Your task to perform on an android device: Open sound settings Image 0: 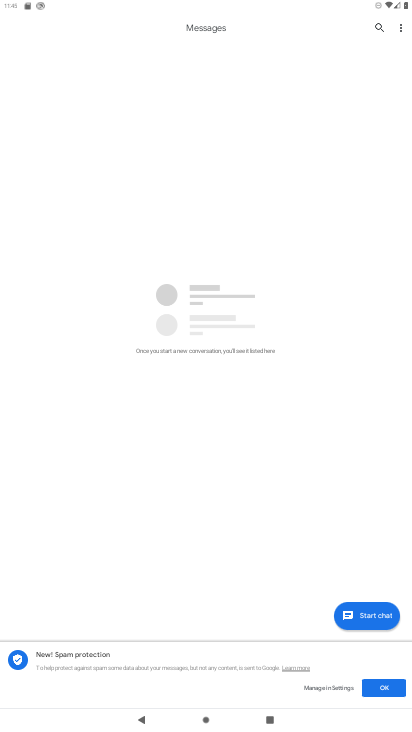
Step 0: press home button
Your task to perform on an android device: Open sound settings Image 1: 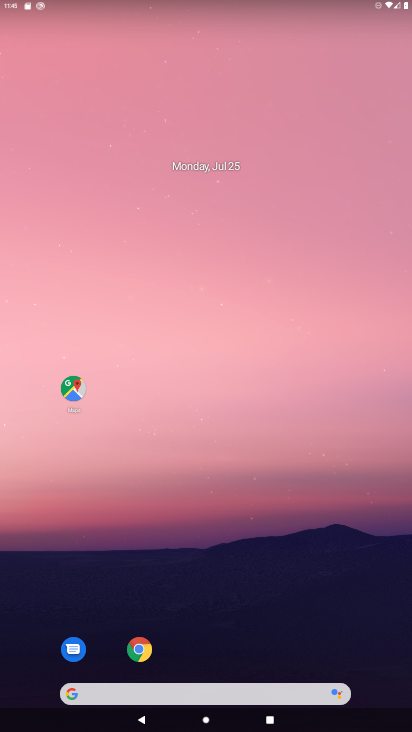
Step 1: drag from (356, 669) to (312, 242)
Your task to perform on an android device: Open sound settings Image 2: 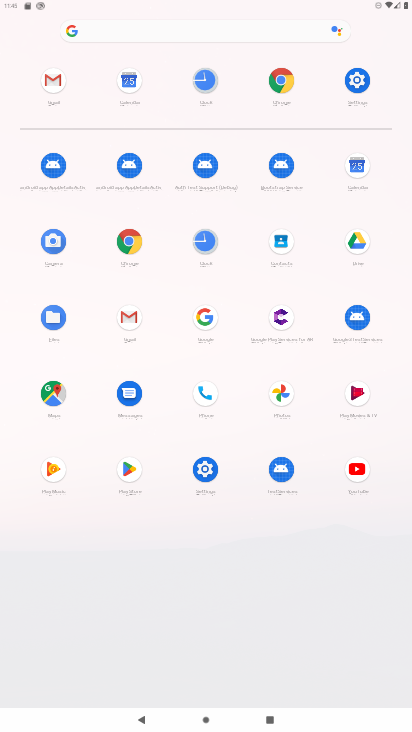
Step 2: click (204, 470)
Your task to perform on an android device: Open sound settings Image 3: 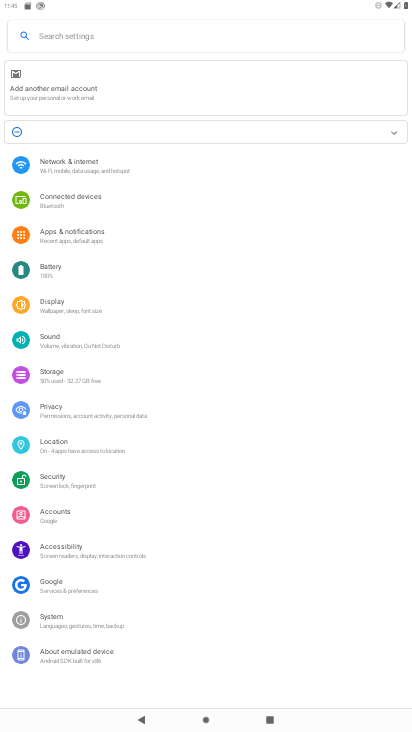
Step 3: click (56, 334)
Your task to perform on an android device: Open sound settings Image 4: 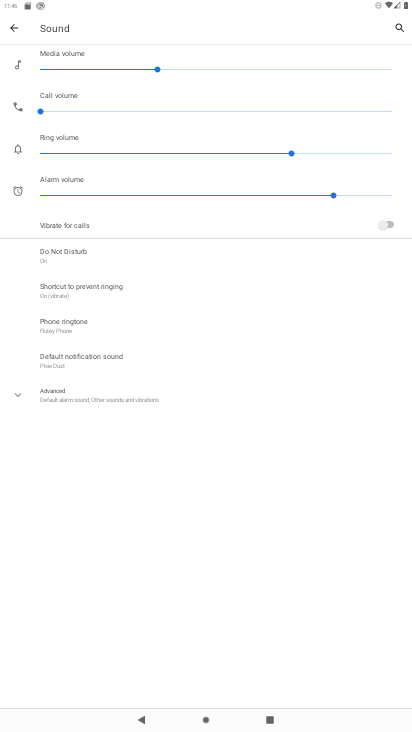
Step 4: click (19, 396)
Your task to perform on an android device: Open sound settings Image 5: 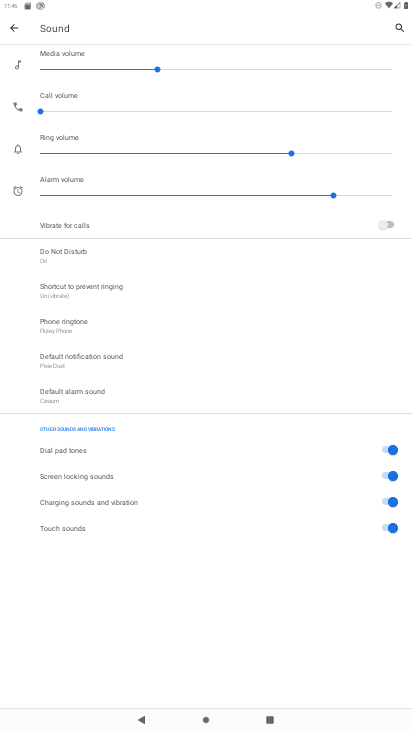
Step 5: task complete